Your task to perform on an android device: turn off priority inbox in the gmail app Image 0: 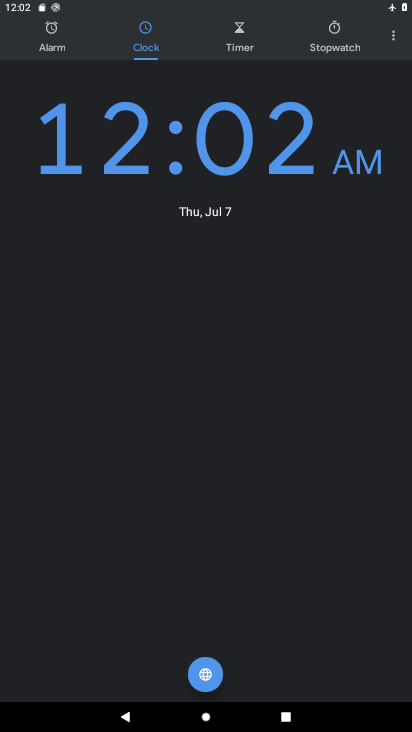
Step 0: press home button
Your task to perform on an android device: turn off priority inbox in the gmail app Image 1: 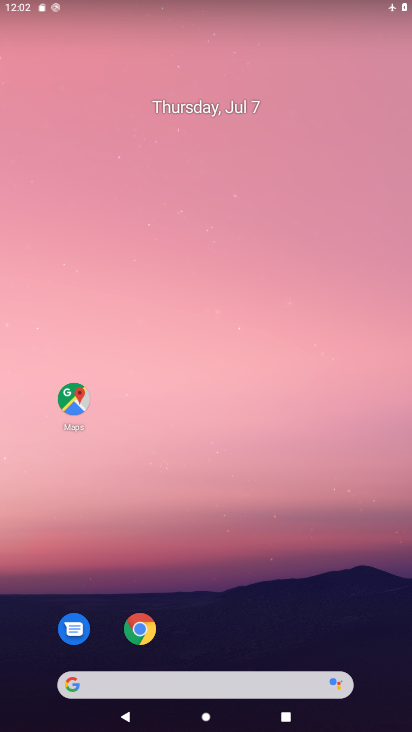
Step 1: drag from (368, 636) to (227, 48)
Your task to perform on an android device: turn off priority inbox in the gmail app Image 2: 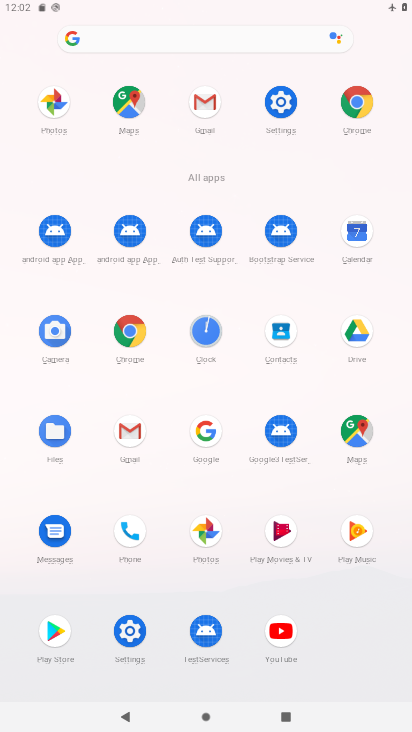
Step 2: click (215, 101)
Your task to perform on an android device: turn off priority inbox in the gmail app Image 3: 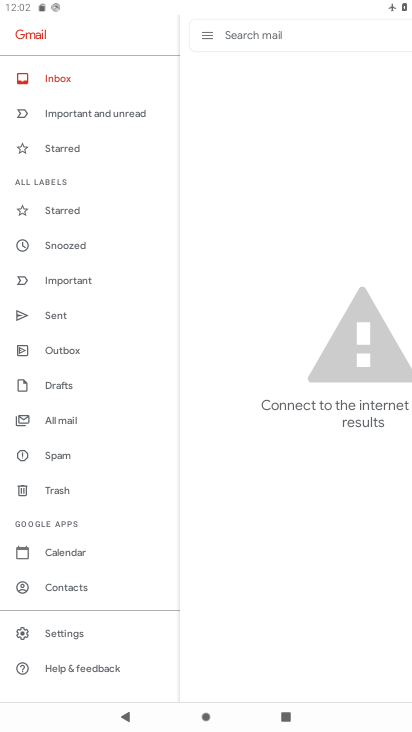
Step 3: click (60, 635)
Your task to perform on an android device: turn off priority inbox in the gmail app Image 4: 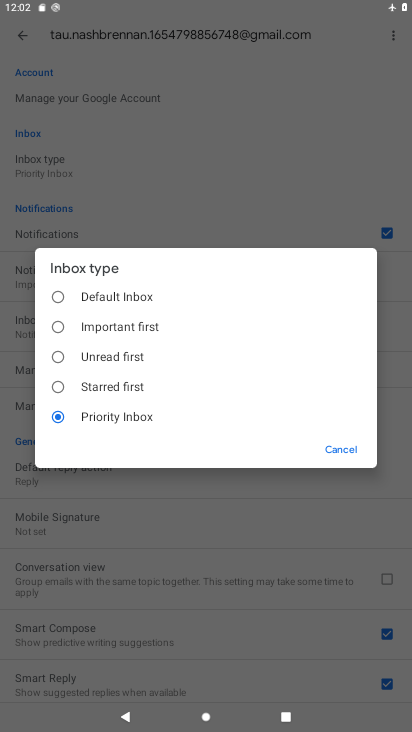
Step 4: click (96, 292)
Your task to perform on an android device: turn off priority inbox in the gmail app Image 5: 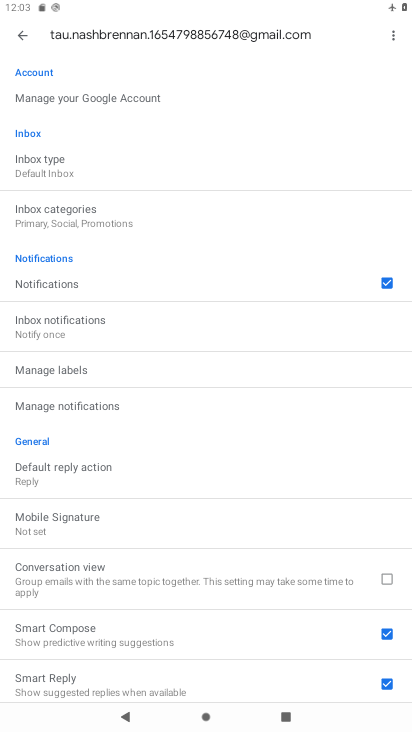
Step 5: task complete